Your task to perform on an android device: find photos in the google photos app Image 0: 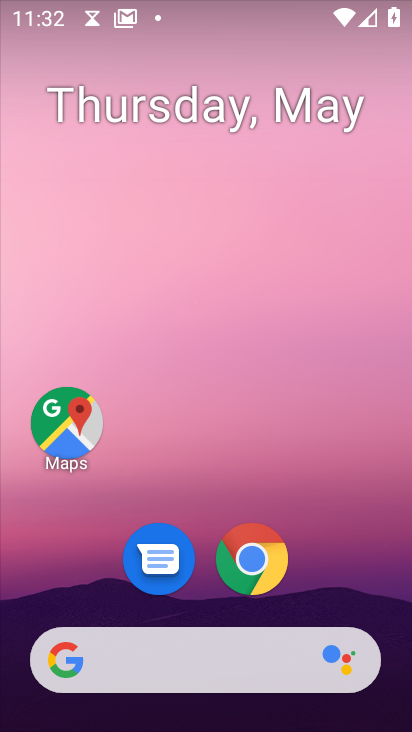
Step 0: drag from (210, 724) to (210, 149)
Your task to perform on an android device: find photos in the google photos app Image 1: 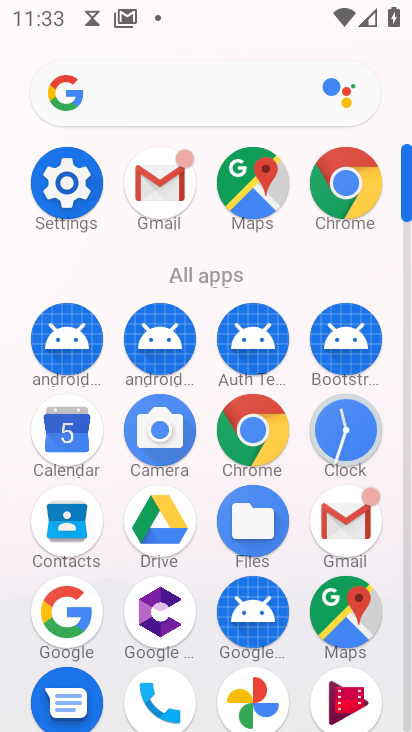
Step 1: click (256, 707)
Your task to perform on an android device: find photos in the google photos app Image 2: 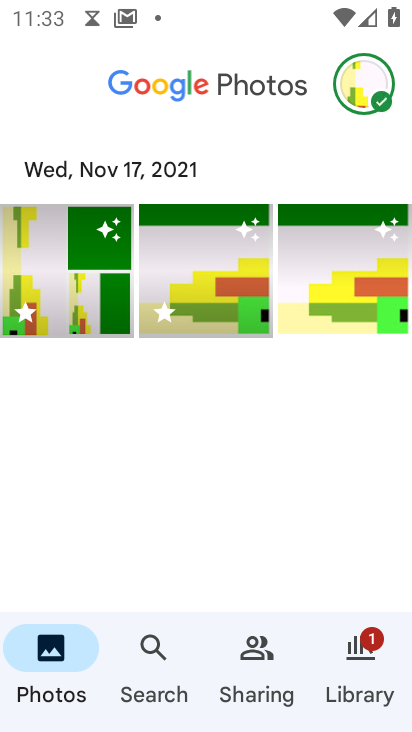
Step 2: task complete